Your task to perform on an android device: open the mobile data screen to see how much data has been used Image 0: 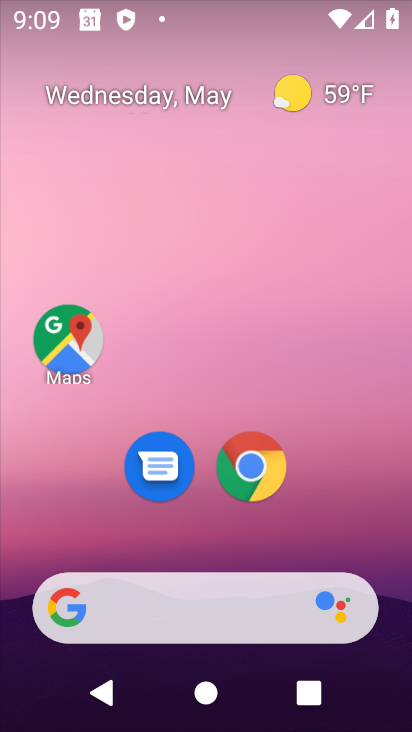
Step 0: drag from (318, 537) to (310, 202)
Your task to perform on an android device: open the mobile data screen to see how much data has been used Image 1: 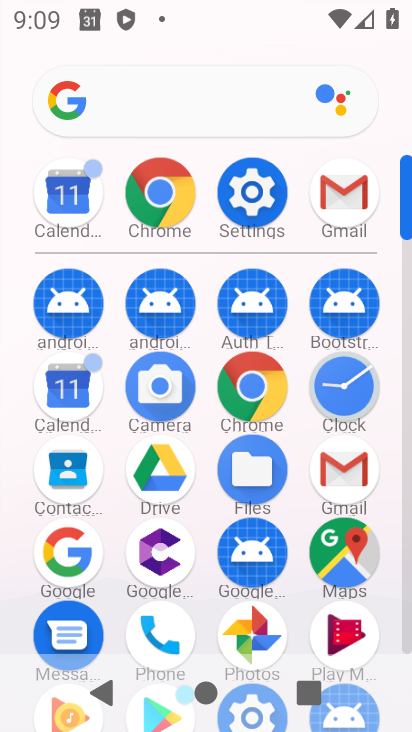
Step 1: click (236, 196)
Your task to perform on an android device: open the mobile data screen to see how much data has been used Image 2: 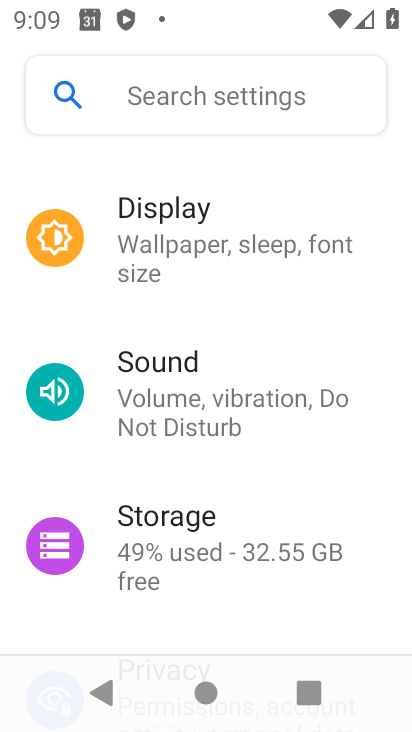
Step 2: drag from (180, 226) to (205, 573)
Your task to perform on an android device: open the mobile data screen to see how much data has been used Image 3: 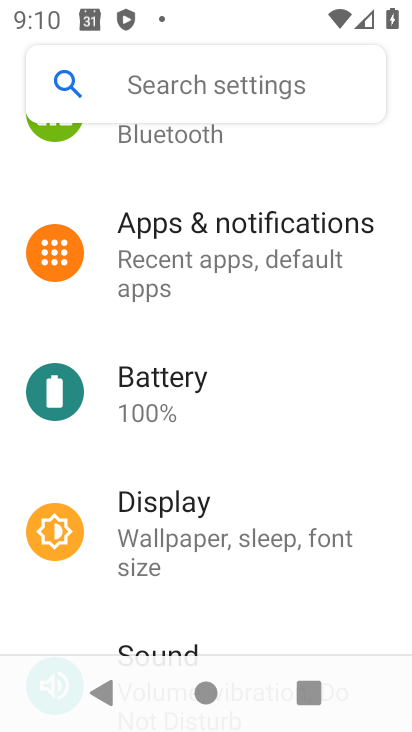
Step 3: click (264, 218)
Your task to perform on an android device: open the mobile data screen to see how much data has been used Image 4: 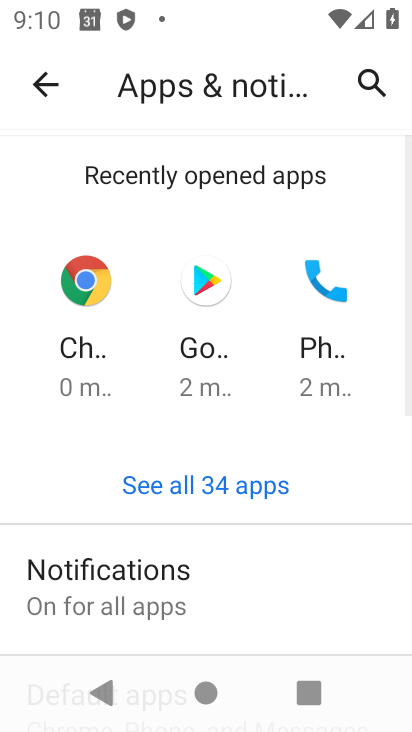
Step 4: press back button
Your task to perform on an android device: open the mobile data screen to see how much data has been used Image 5: 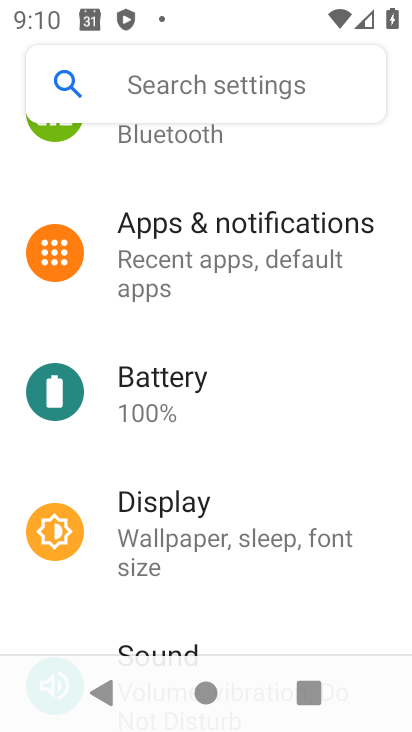
Step 5: drag from (246, 163) to (235, 683)
Your task to perform on an android device: open the mobile data screen to see how much data has been used Image 6: 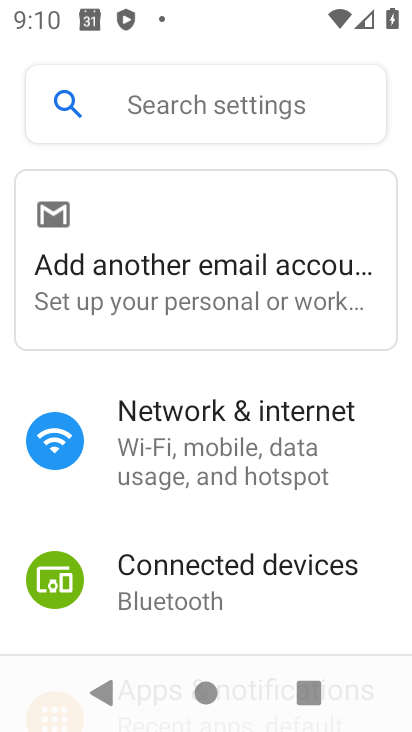
Step 6: click (222, 446)
Your task to perform on an android device: open the mobile data screen to see how much data has been used Image 7: 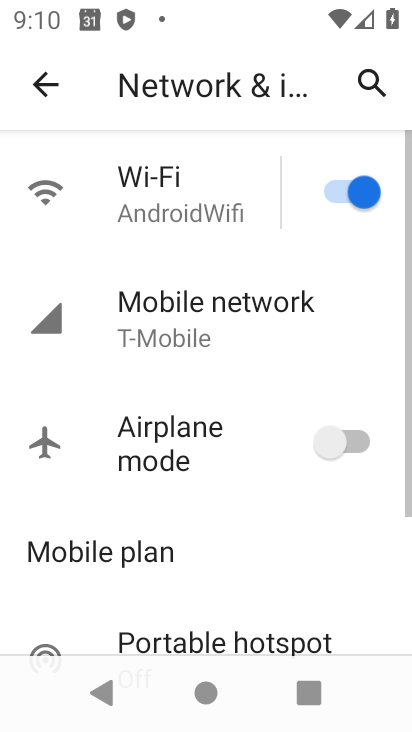
Step 7: click (229, 330)
Your task to perform on an android device: open the mobile data screen to see how much data has been used Image 8: 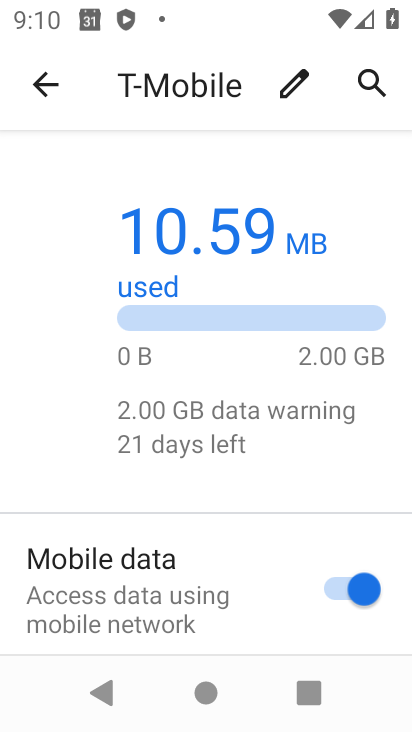
Step 8: drag from (222, 596) to (276, 213)
Your task to perform on an android device: open the mobile data screen to see how much data has been used Image 9: 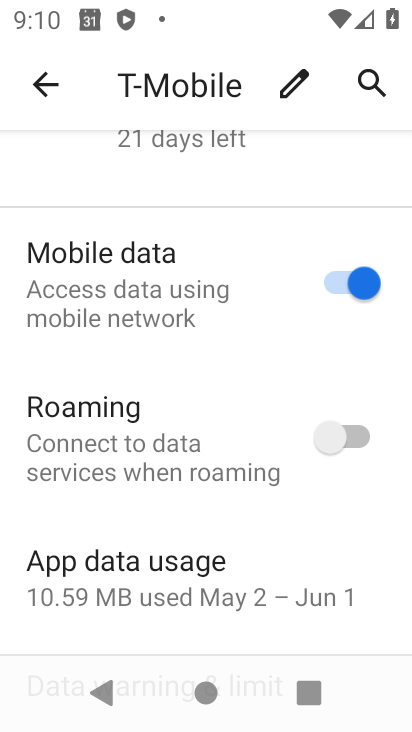
Step 9: click (179, 594)
Your task to perform on an android device: open the mobile data screen to see how much data has been used Image 10: 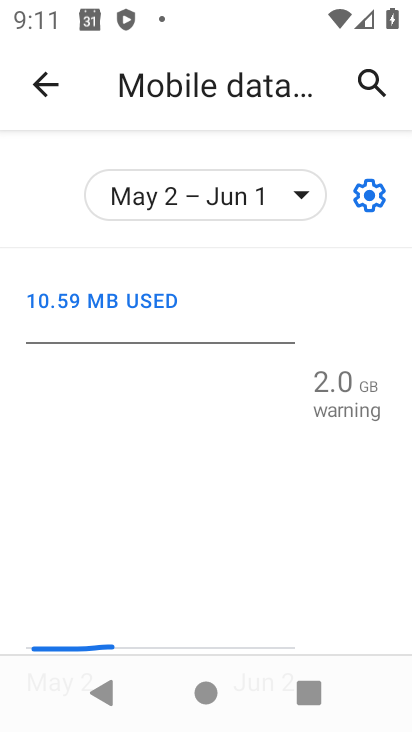
Step 10: click (301, 192)
Your task to perform on an android device: open the mobile data screen to see how much data has been used Image 11: 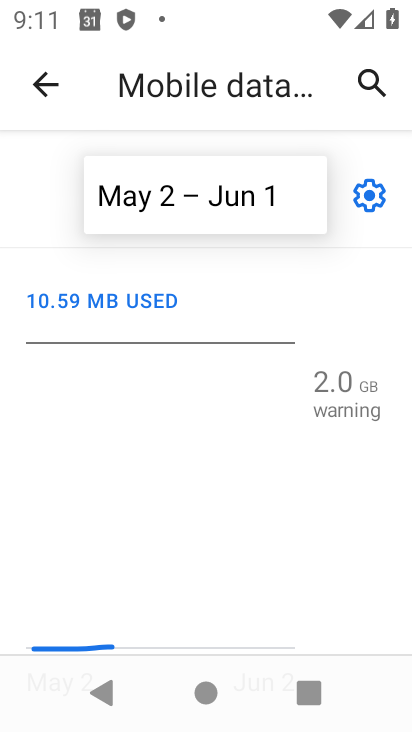
Step 11: task complete